Your task to perform on an android device: move an email to a new category in the gmail app Image 0: 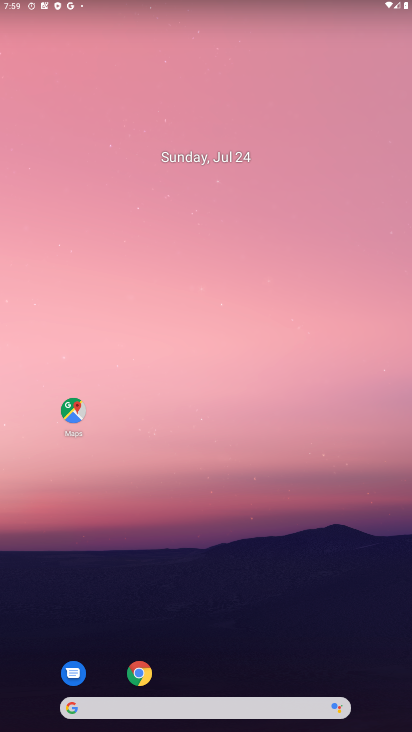
Step 0: drag from (22, 674) to (236, 192)
Your task to perform on an android device: move an email to a new category in the gmail app Image 1: 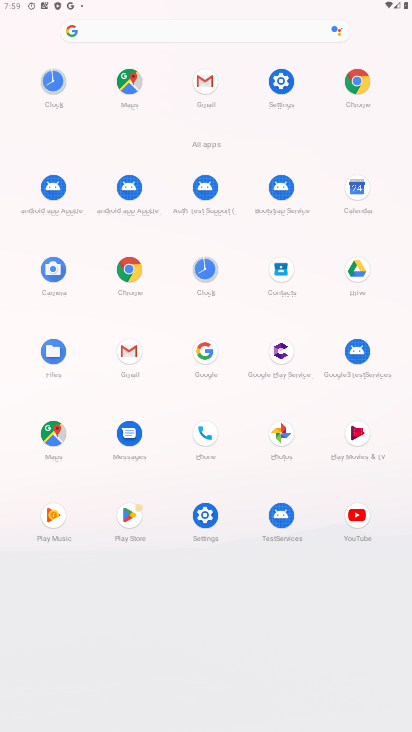
Step 1: click (123, 345)
Your task to perform on an android device: move an email to a new category in the gmail app Image 2: 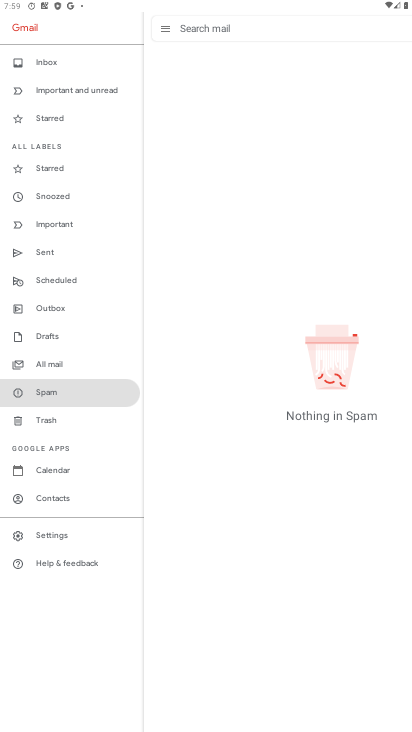
Step 2: click (68, 50)
Your task to perform on an android device: move an email to a new category in the gmail app Image 3: 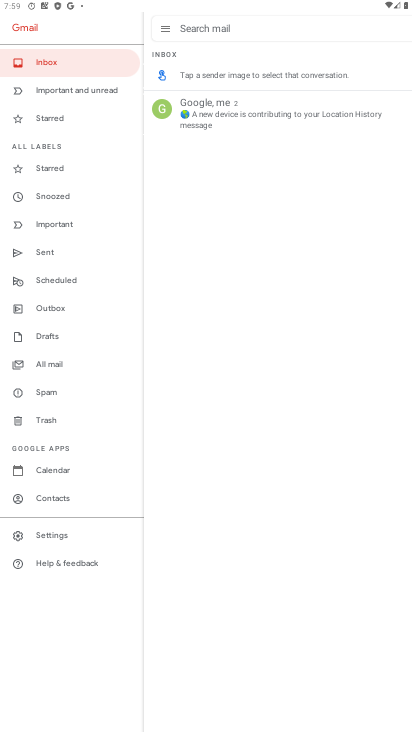
Step 3: task complete